Your task to perform on an android device: turn on priority inbox in the gmail app Image 0: 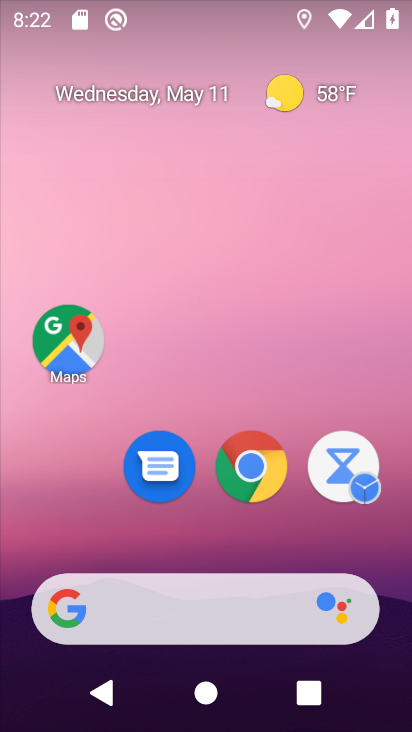
Step 0: drag from (112, 561) to (138, 83)
Your task to perform on an android device: turn on priority inbox in the gmail app Image 1: 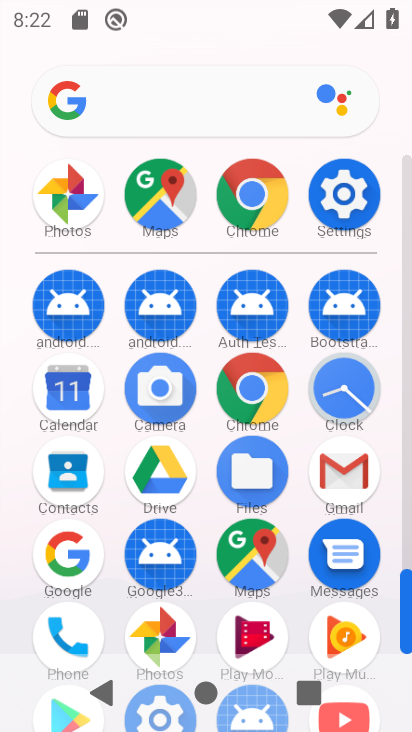
Step 1: click (319, 478)
Your task to perform on an android device: turn on priority inbox in the gmail app Image 2: 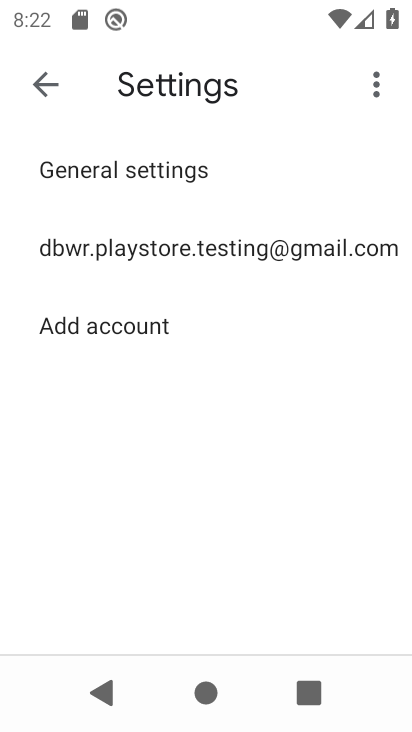
Step 2: click (216, 246)
Your task to perform on an android device: turn on priority inbox in the gmail app Image 3: 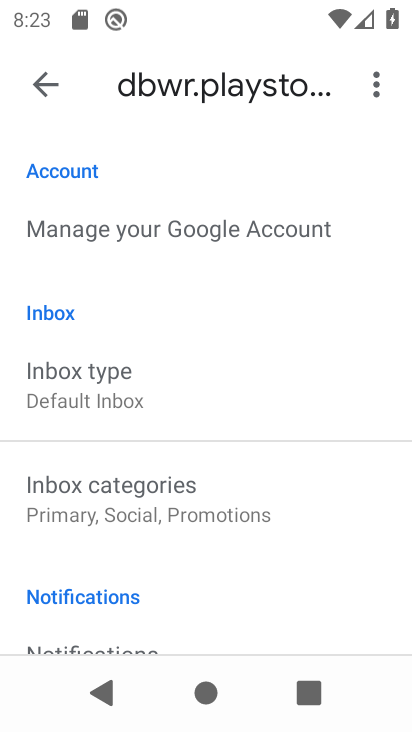
Step 3: click (86, 410)
Your task to perform on an android device: turn on priority inbox in the gmail app Image 4: 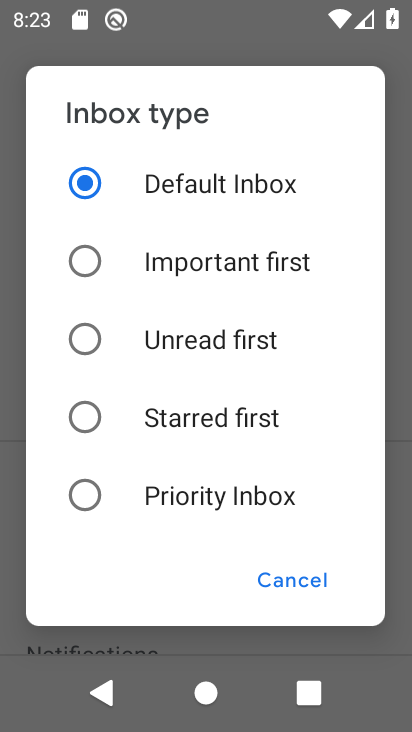
Step 4: click (156, 476)
Your task to perform on an android device: turn on priority inbox in the gmail app Image 5: 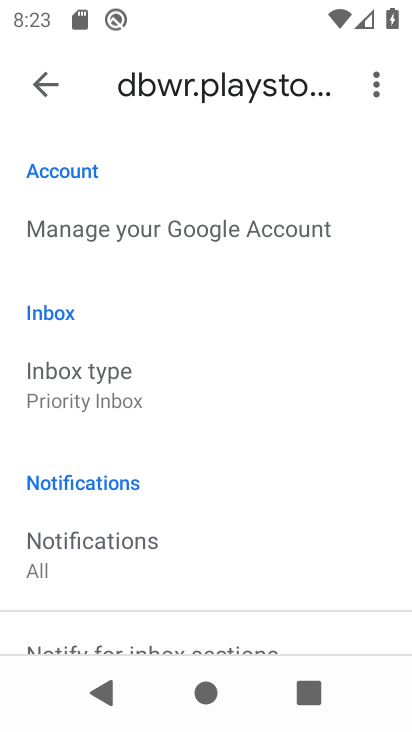
Step 5: task complete